Your task to perform on an android device: change the clock display to analog Image 0: 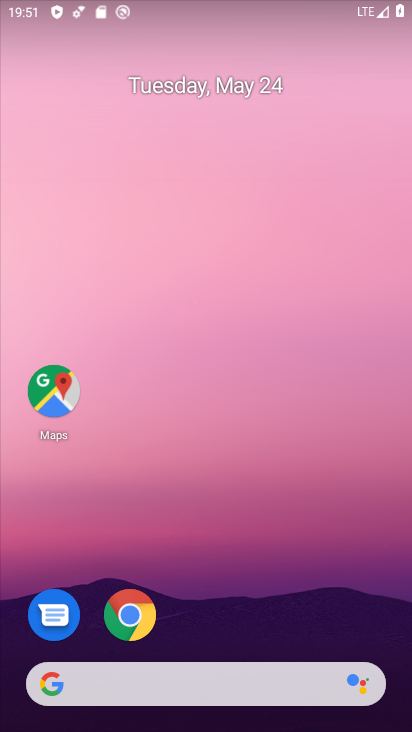
Step 0: drag from (250, 626) to (238, 325)
Your task to perform on an android device: change the clock display to analog Image 1: 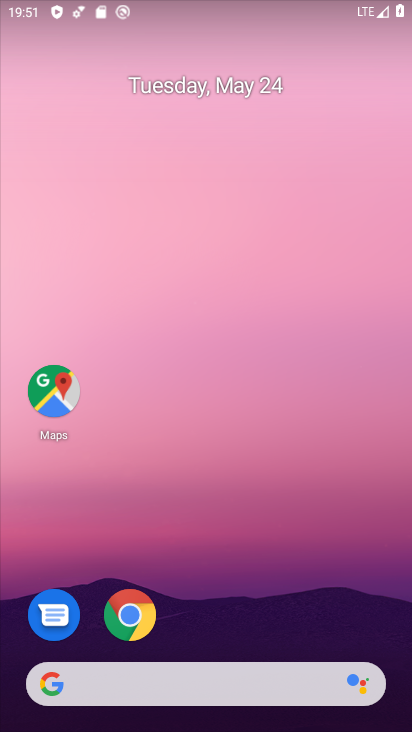
Step 1: drag from (243, 622) to (234, 209)
Your task to perform on an android device: change the clock display to analog Image 2: 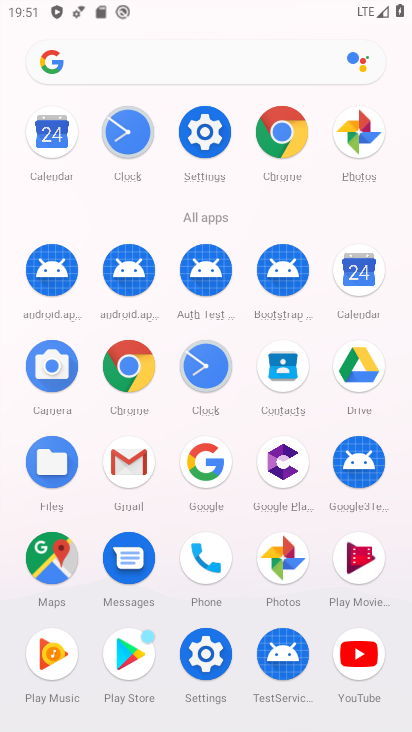
Step 2: click (195, 369)
Your task to perform on an android device: change the clock display to analog Image 3: 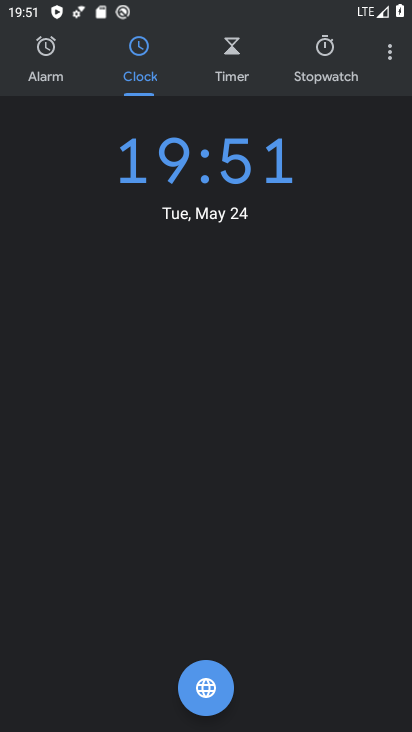
Step 3: click (383, 49)
Your task to perform on an android device: change the clock display to analog Image 4: 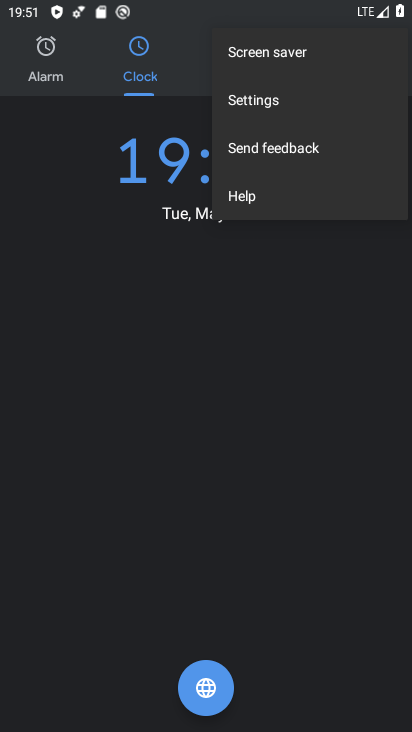
Step 4: click (300, 102)
Your task to perform on an android device: change the clock display to analog Image 5: 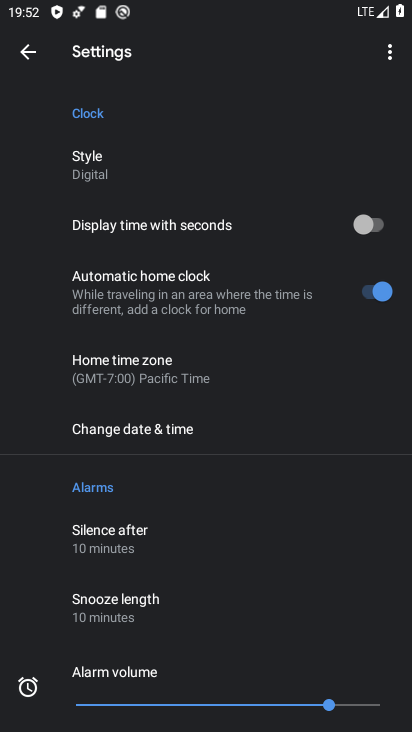
Step 5: drag from (222, 480) to (222, 345)
Your task to perform on an android device: change the clock display to analog Image 6: 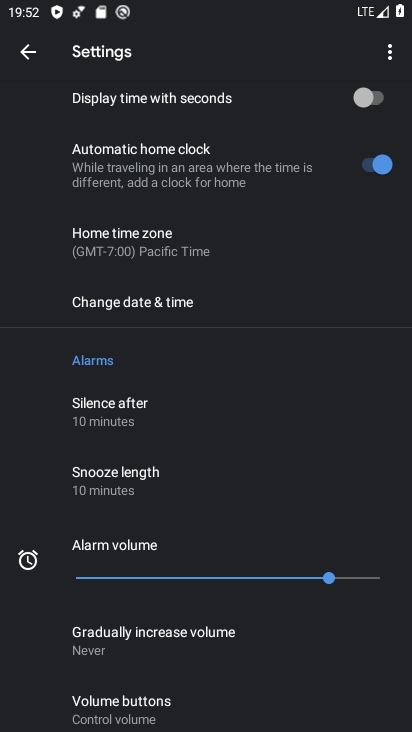
Step 6: drag from (151, 98) to (185, 298)
Your task to perform on an android device: change the clock display to analog Image 7: 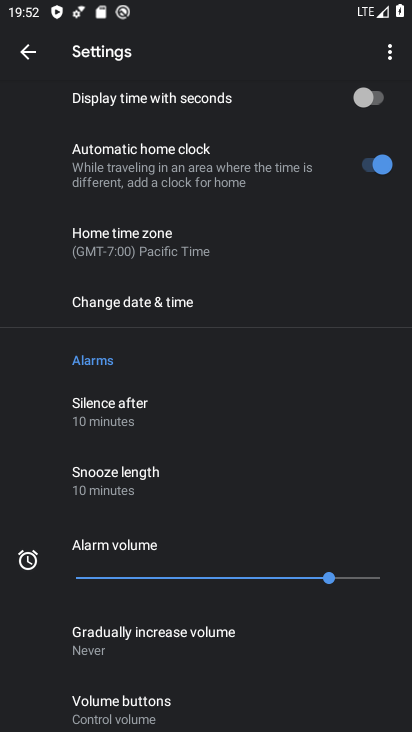
Step 7: drag from (197, 277) to (222, 433)
Your task to perform on an android device: change the clock display to analog Image 8: 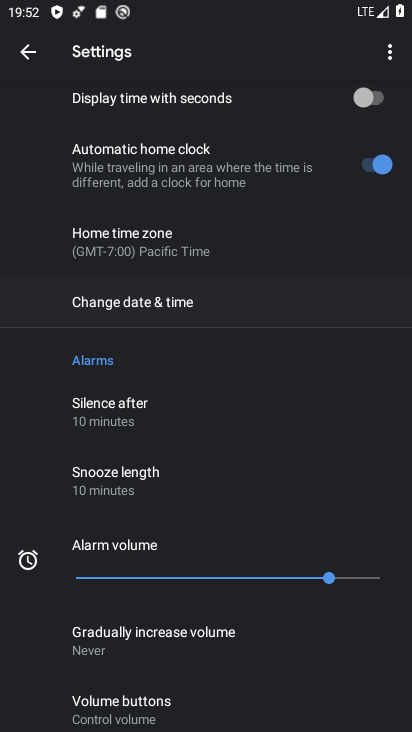
Step 8: drag from (192, 281) to (192, 420)
Your task to perform on an android device: change the clock display to analog Image 9: 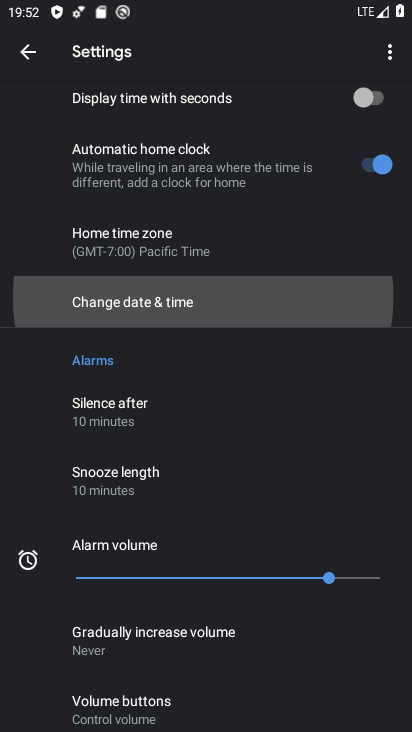
Step 9: drag from (165, 198) to (197, 466)
Your task to perform on an android device: change the clock display to analog Image 10: 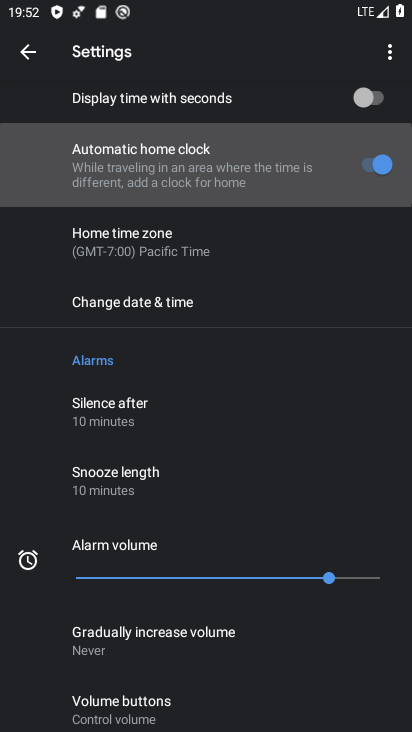
Step 10: drag from (173, 154) to (217, 431)
Your task to perform on an android device: change the clock display to analog Image 11: 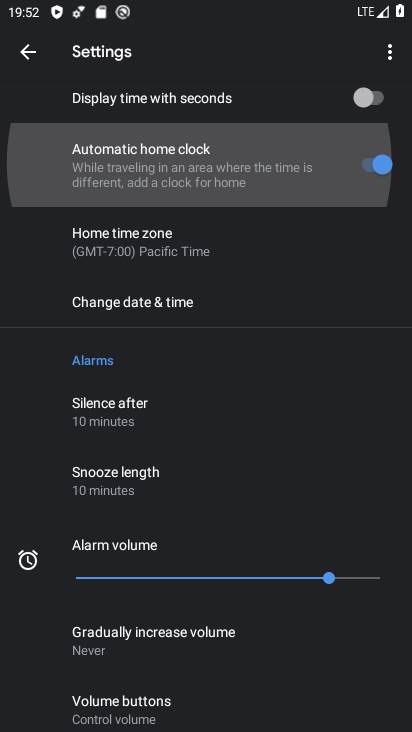
Step 11: drag from (168, 142) to (171, 341)
Your task to perform on an android device: change the clock display to analog Image 12: 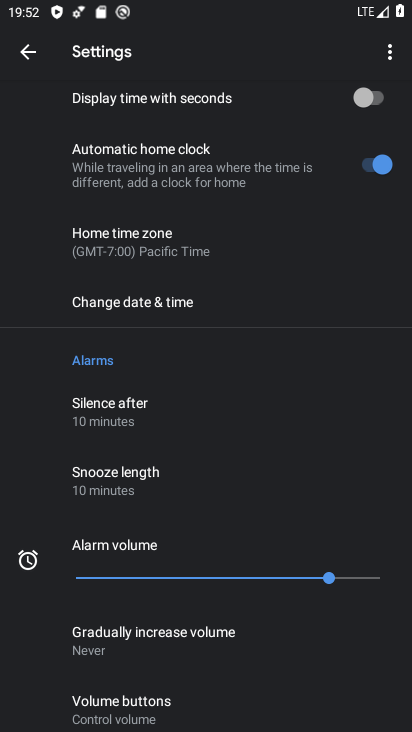
Step 12: drag from (314, 236) to (288, 446)
Your task to perform on an android device: change the clock display to analog Image 13: 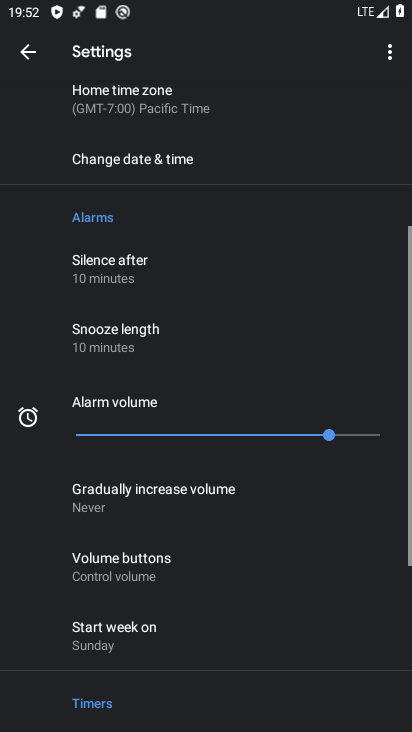
Step 13: drag from (247, 250) to (265, 488)
Your task to perform on an android device: change the clock display to analog Image 14: 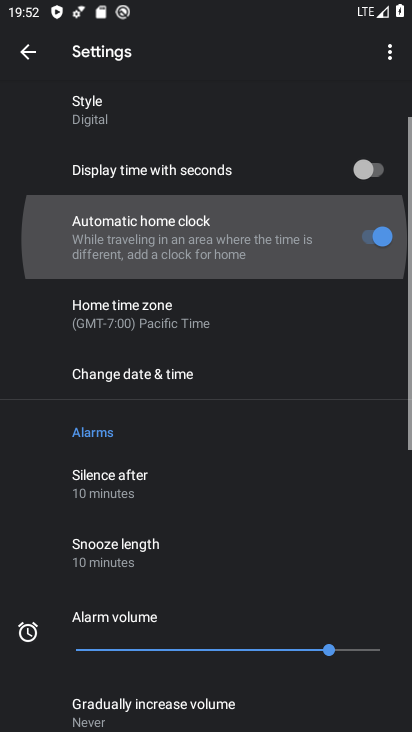
Step 14: drag from (226, 252) to (244, 507)
Your task to perform on an android device: change the clock display to analog Image 15: 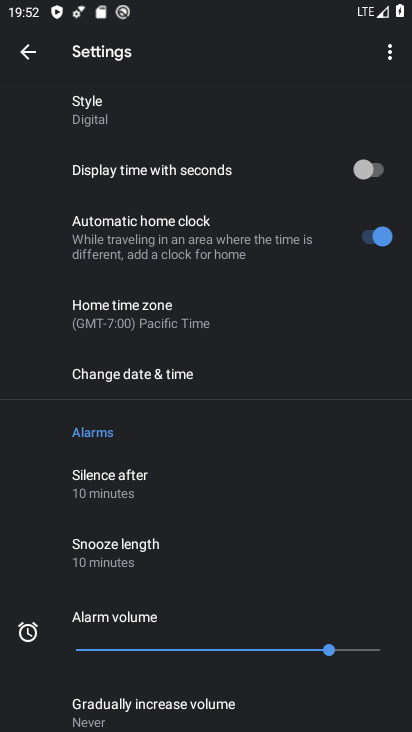
Step 15: click (153, 123)
Your task to perform on an android device: change the clock display to analog Image 16: 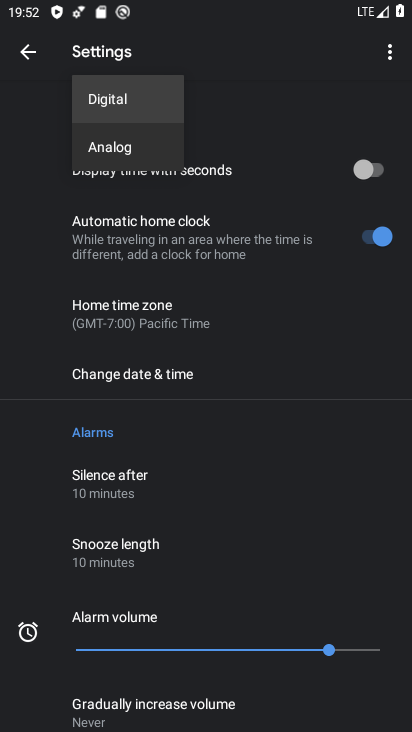
Step 16: click (140, 140)
Your task to perform on an android device: change the clock display to analog Image 17: 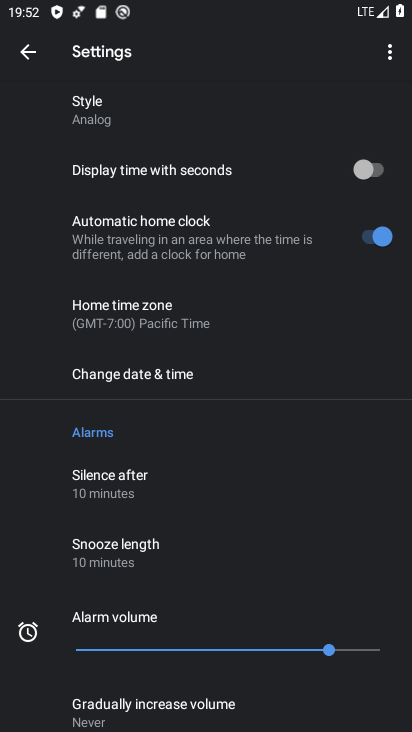
Step 17: task complete